Your task to perform on an android device: Open the phone app and click the voicemail tab. Image 0: 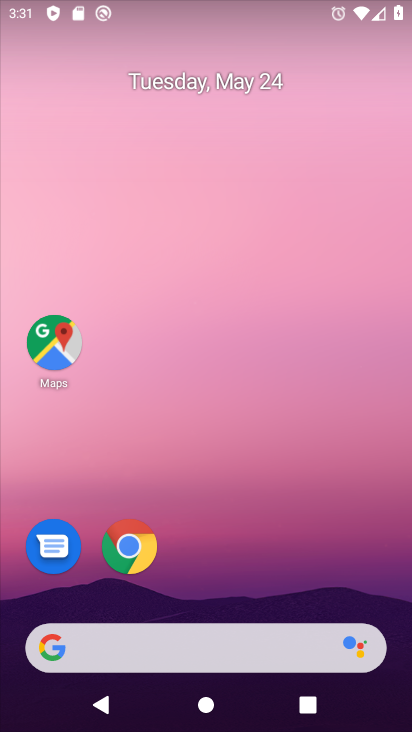
Step 0: drag from (332, 676) to (114, 47)
Your task to perform on an android device: Open the phone app and click the voicemail tab. Image 1: 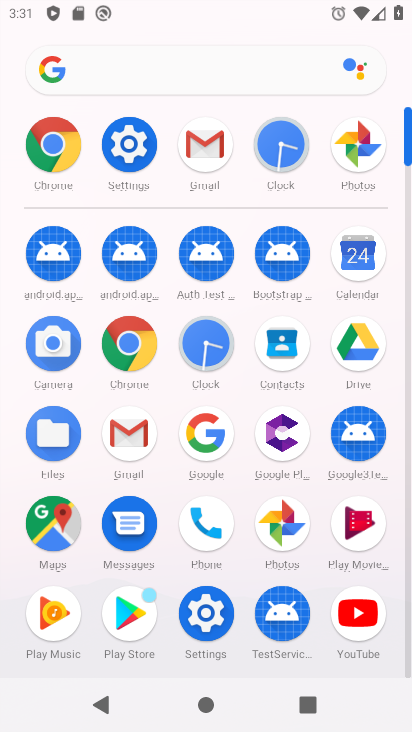
Step 1: click (202, 535)
Your task to perform on an android device: Open the phone app and click the voicemail tab. Image 2: 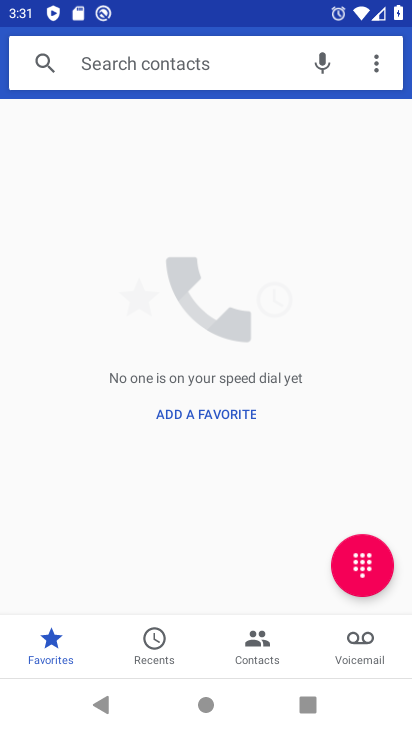
Step 2: click (370, 653)
Your task to perform on an android device: Open the phone app and click the voicemail tab. Image 3: 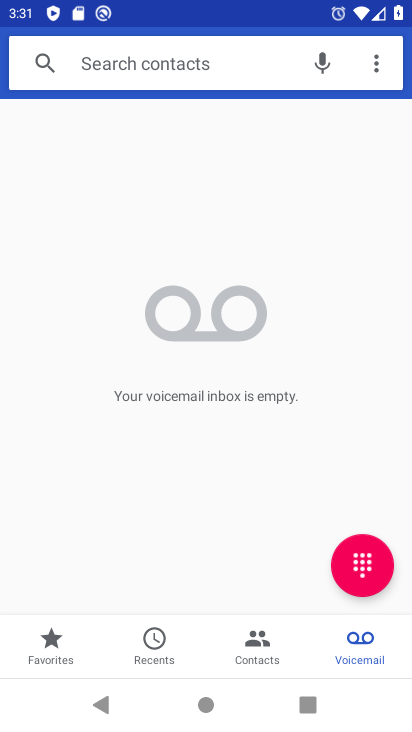
Step 3: task complete